Your task to perform on an android device: When is my next meeting? Image 0: 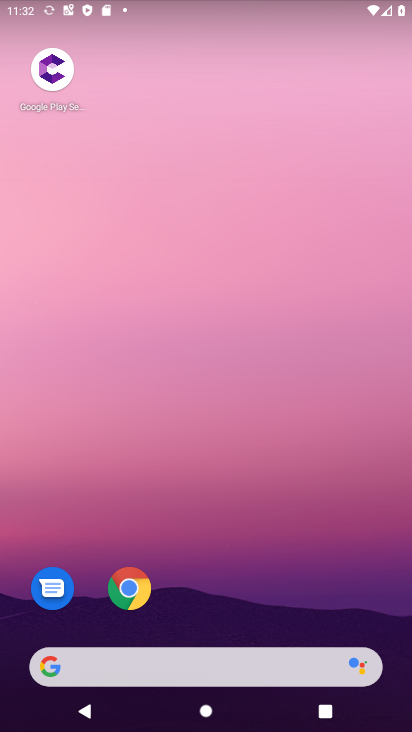
Step 0: drag from (295, 296) to (271, 7)
Your task to perform on an android device: When is my next meeting? Image 1: 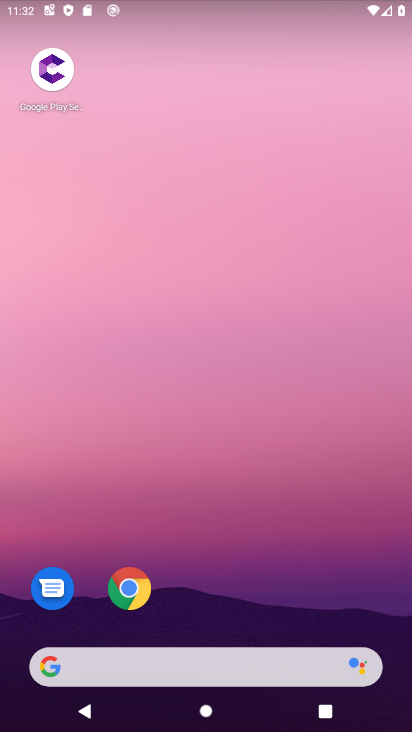
Step 1: drag from (235, 523) to (406, 183)
Your task to perform on an android device: When is my next meeting? Image 2: 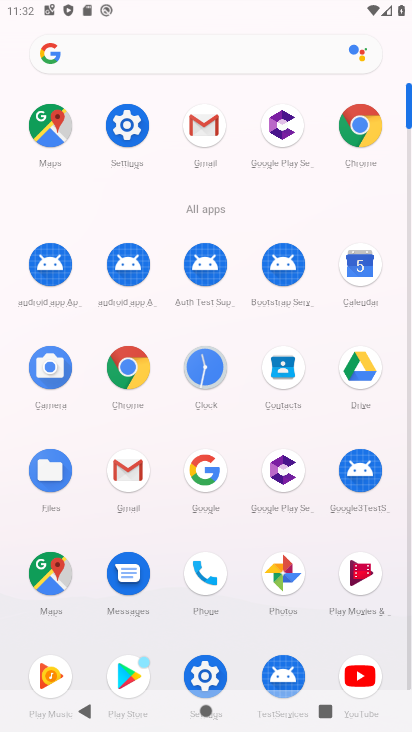
Step 2: click (369, 265)
Your task to perform on an android device: When is my next meeting? Image 3: 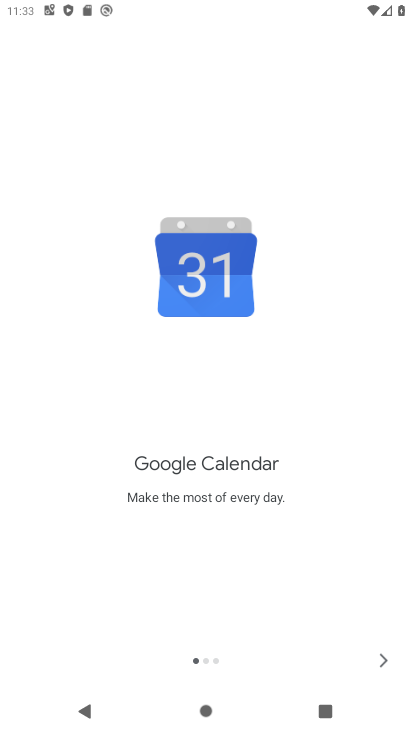
Step 3: click (377, 652)
Your task to perform on an android device: When is my next meeting? Image 4: 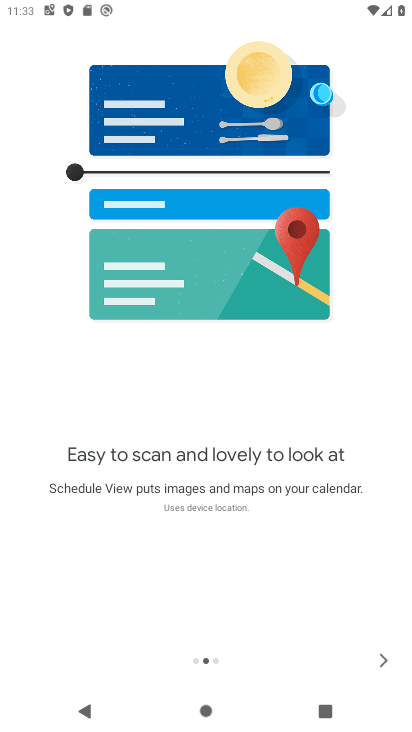
Step 4: click (377, 650)
Your task to perform on an android device: When is my next meeting? Image 5: 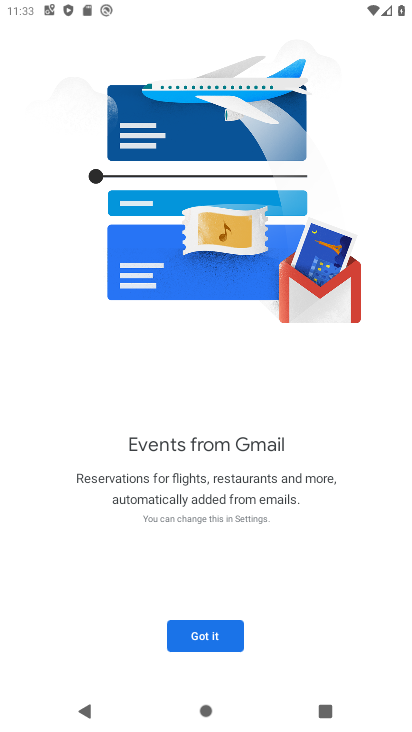
Step 5: click (222, 637)
Your task to perform on an android device: When is my next meeting? Image 6: 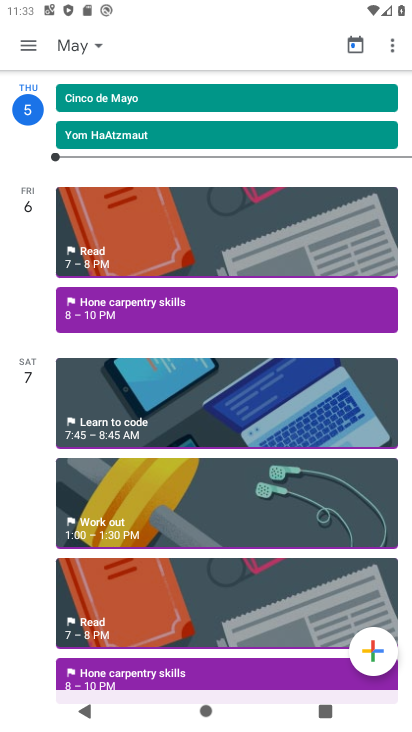
Step 6: task complete